Your task to perform on an android device: Open internet settings Image 0: 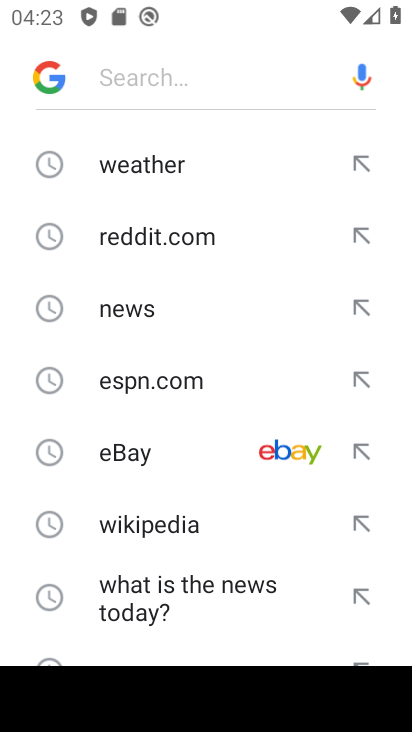
Step 0: press home button
Your task to perform on an android device: Open internet settings Image 1: 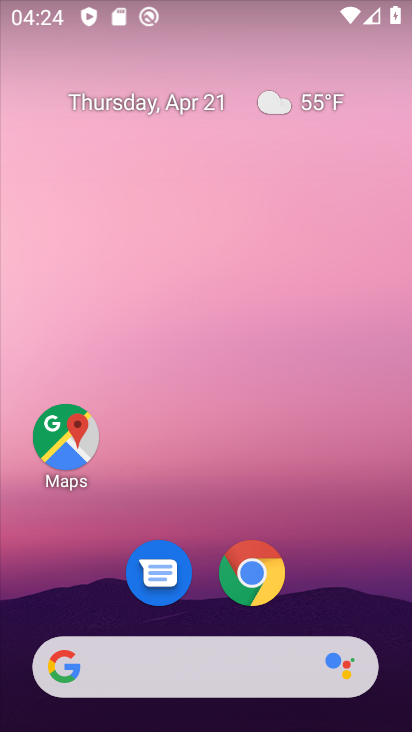
Step 1: drag from (349, 593) to (284, 89)
Your task to perform on an android device: Open internet settings Image 2: 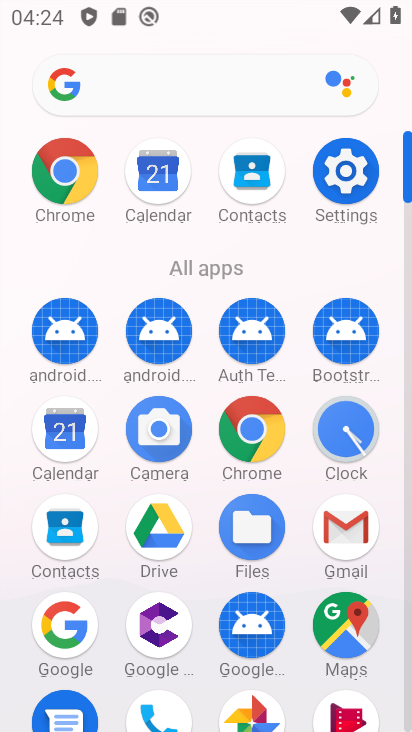
Step 2: click (356, 184)
Your task to perform on an android device: Open internet settings Image 3: 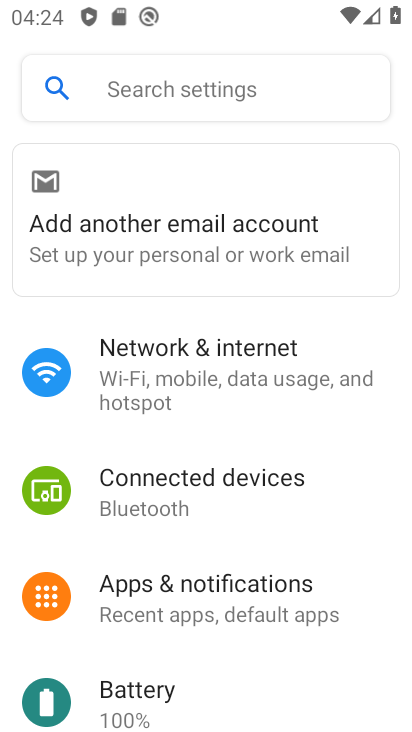
Step 3: drag from (247, 658) to (248, 430)
Your task to perform on an android device: Open internet settings Image 4: 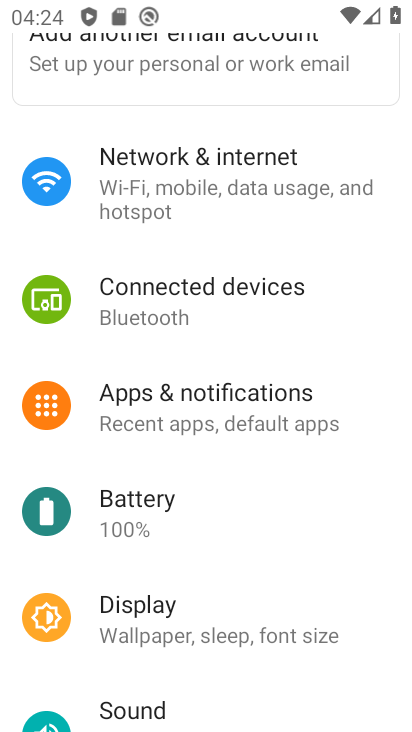
Step 4: click (206, 181)
Your task to perform on an android device: Open internet settings Image 5: 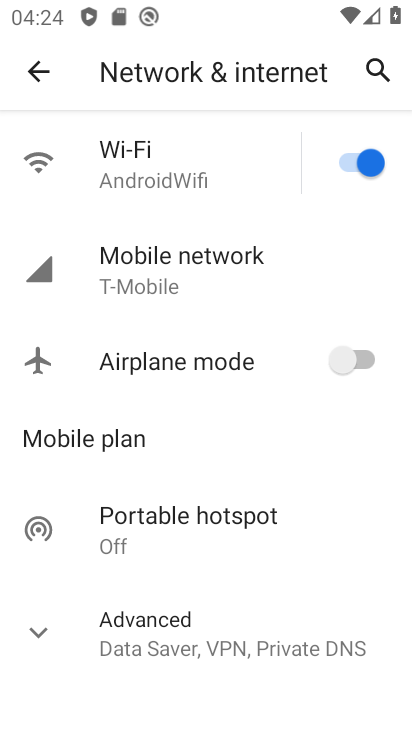
Step 5: click (189, 268)
Your task to perform on an android device: Open internet settings Image 6: 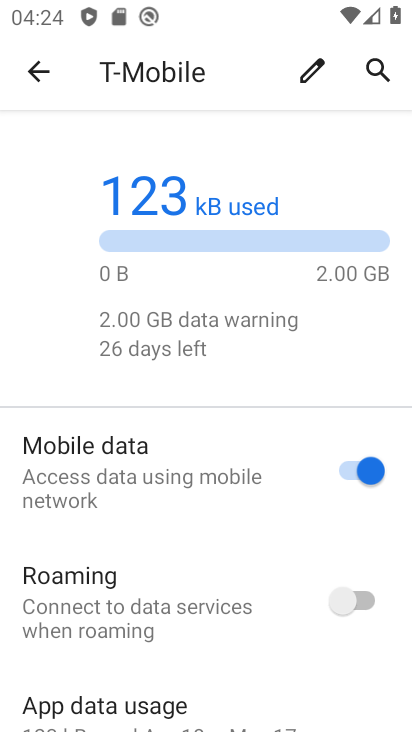
Step 6: task complete